Your task to perform on an android device: open app "Booking.com: Hotels and more" (install if not already installed), go to login, and select forgot password Image 0: 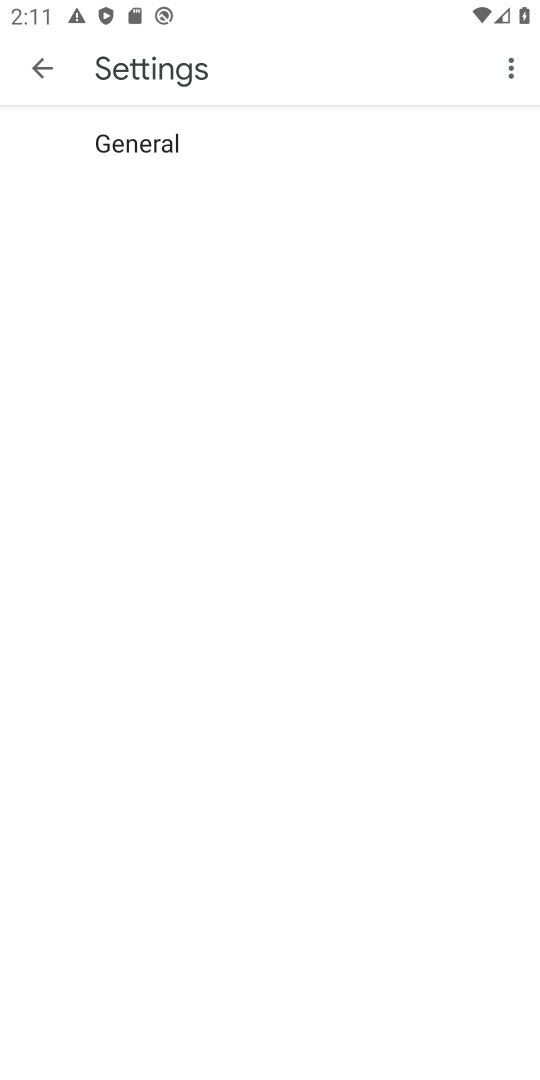
Step 0: press home button
Your task to perform on an android device: open app "Booking.com: Hotels and more" (install if not already installed), go to login, and select forgot password Image 1: 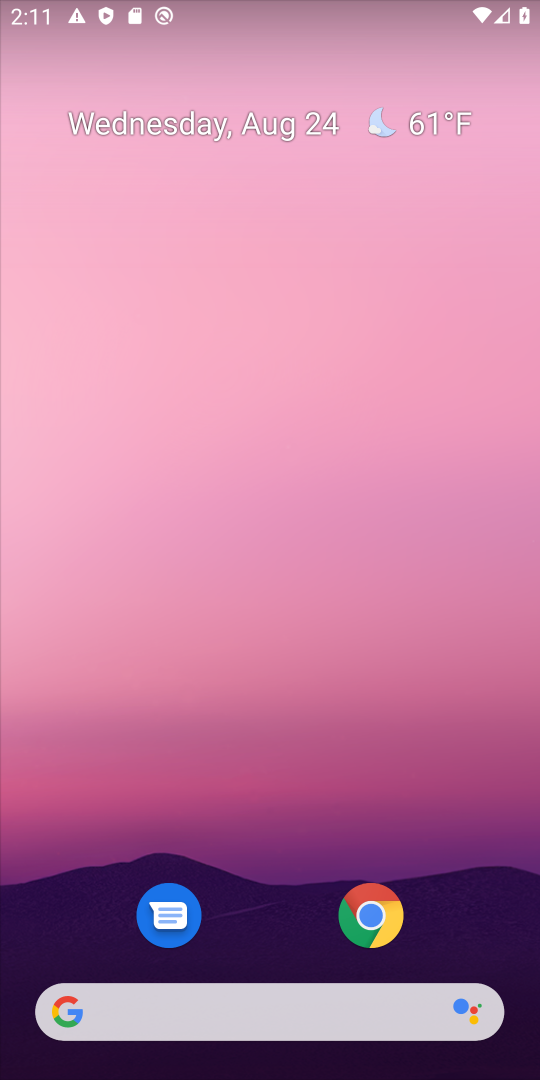
Step 1: drag from (293, 857) to (278, 143)
Your task to perform on an android device: open app "Booking.com: Hotels and more" (install if not already installed), go to login, and select forgot password Image 2: 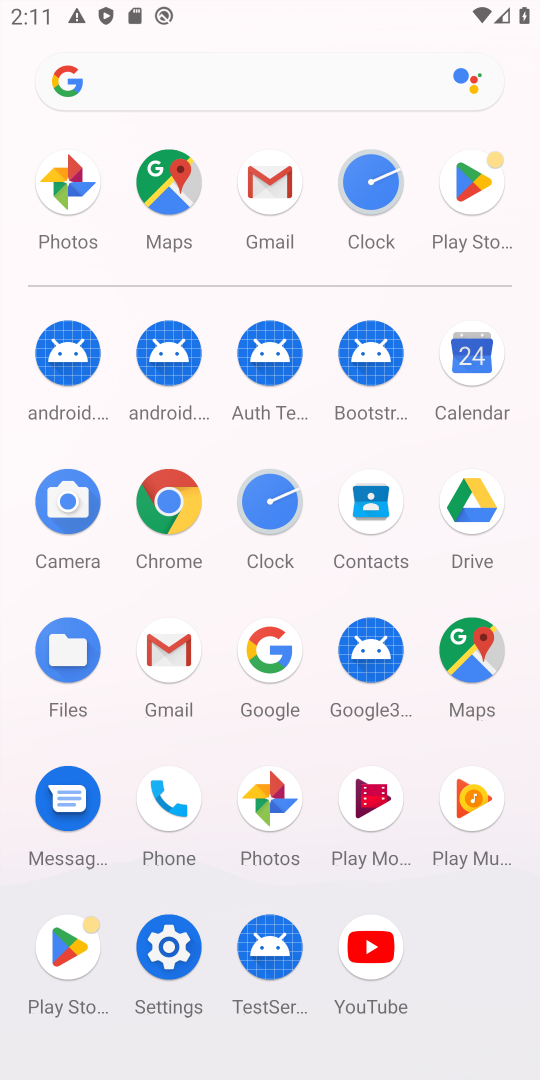
Step 2: click (472, 192)
Your task to perform on an android device: open app "Booking.com: Hotels and more" (install if not already installed), go to login, and select forgot password Image 3: 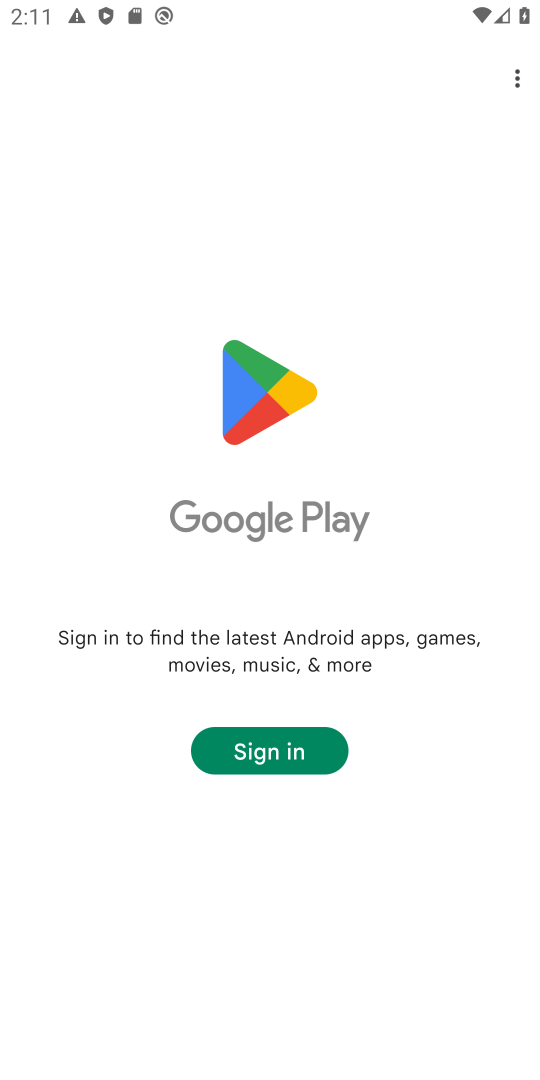
Step 3: task complete